Your task to perform on an android device: Open maps Image 0: 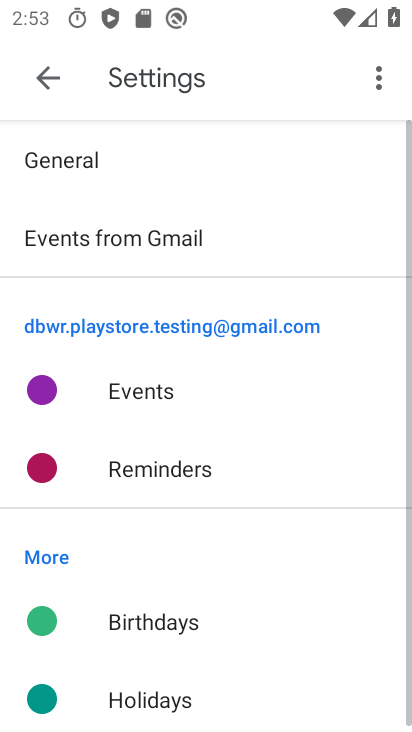
Step 0: press home button
Your task to perform on an android device: Open maps Image 1: 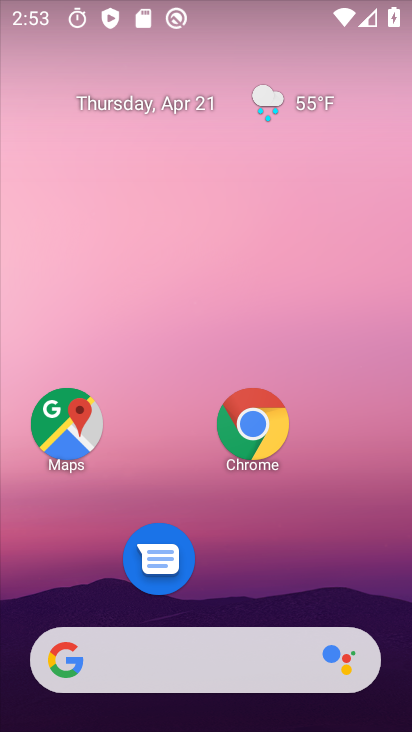
Step 1: click (65, 432)
Your task to perform on an android device: Open maps Image 2: 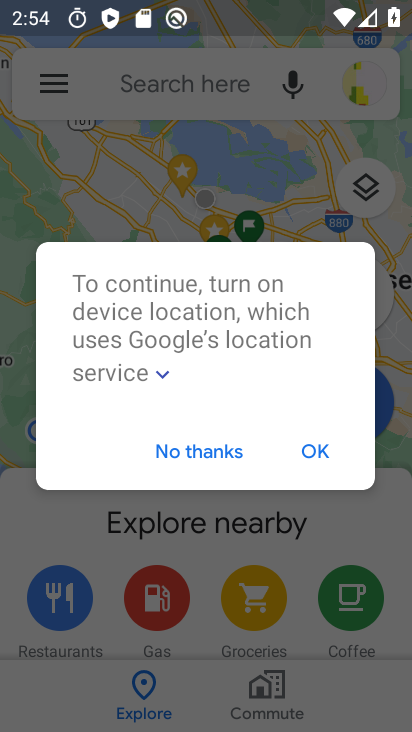
Step 2: click (311, 453)
Your task to perform on an android device: Open maps Image 3: 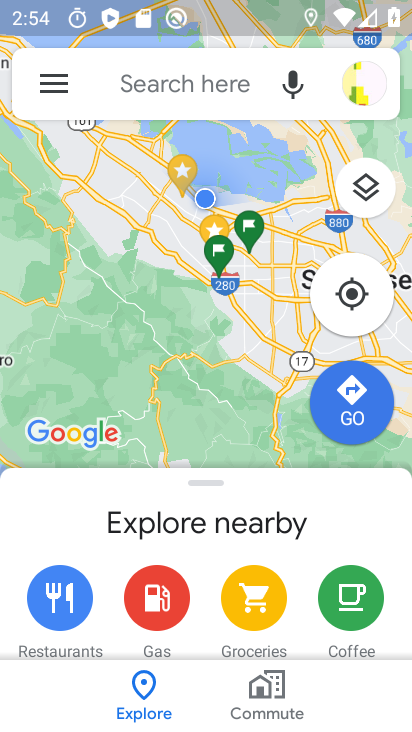
Step 3: task complete